Your task to perform on an android device: Go to battery settings Image 0: 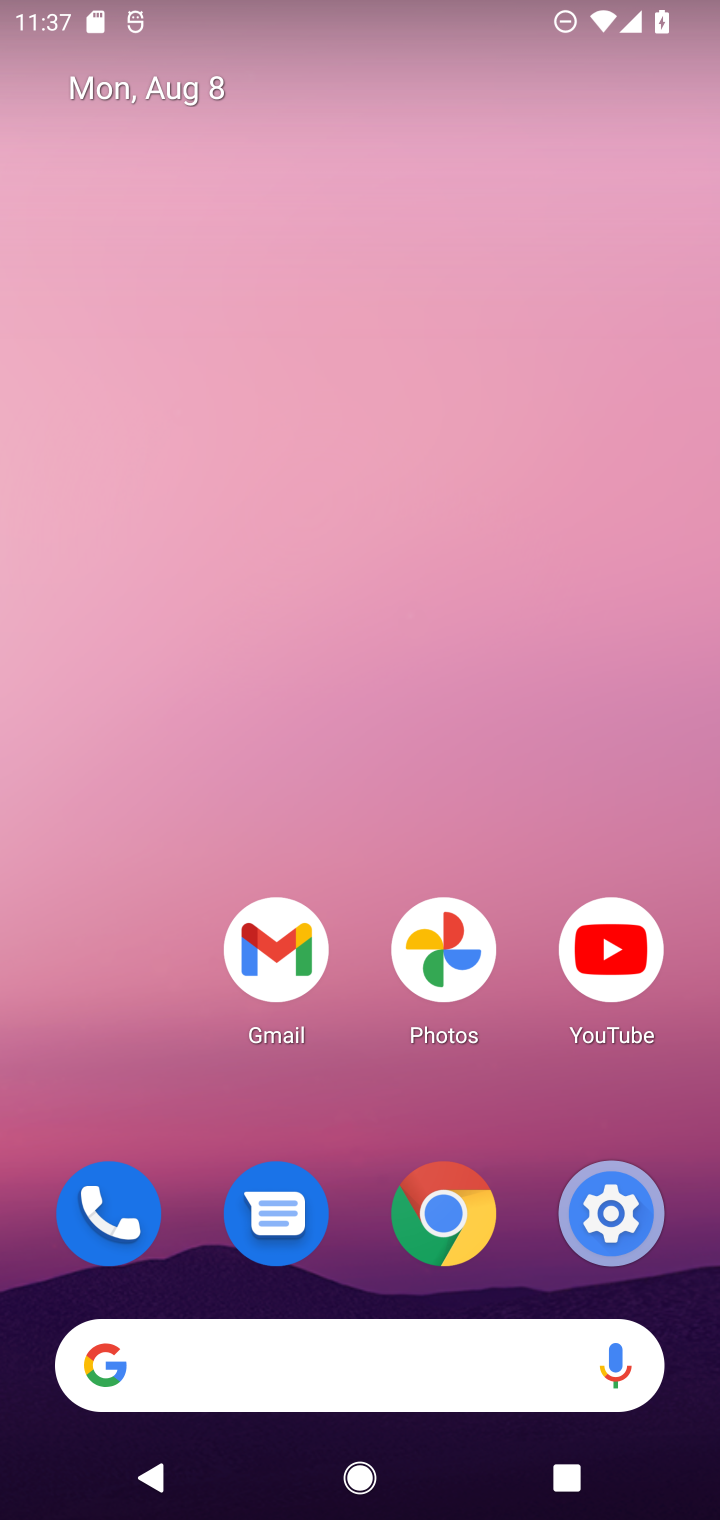
Step 0: press home button
Your task to perform on an android device: Go to battery settings Image 1: 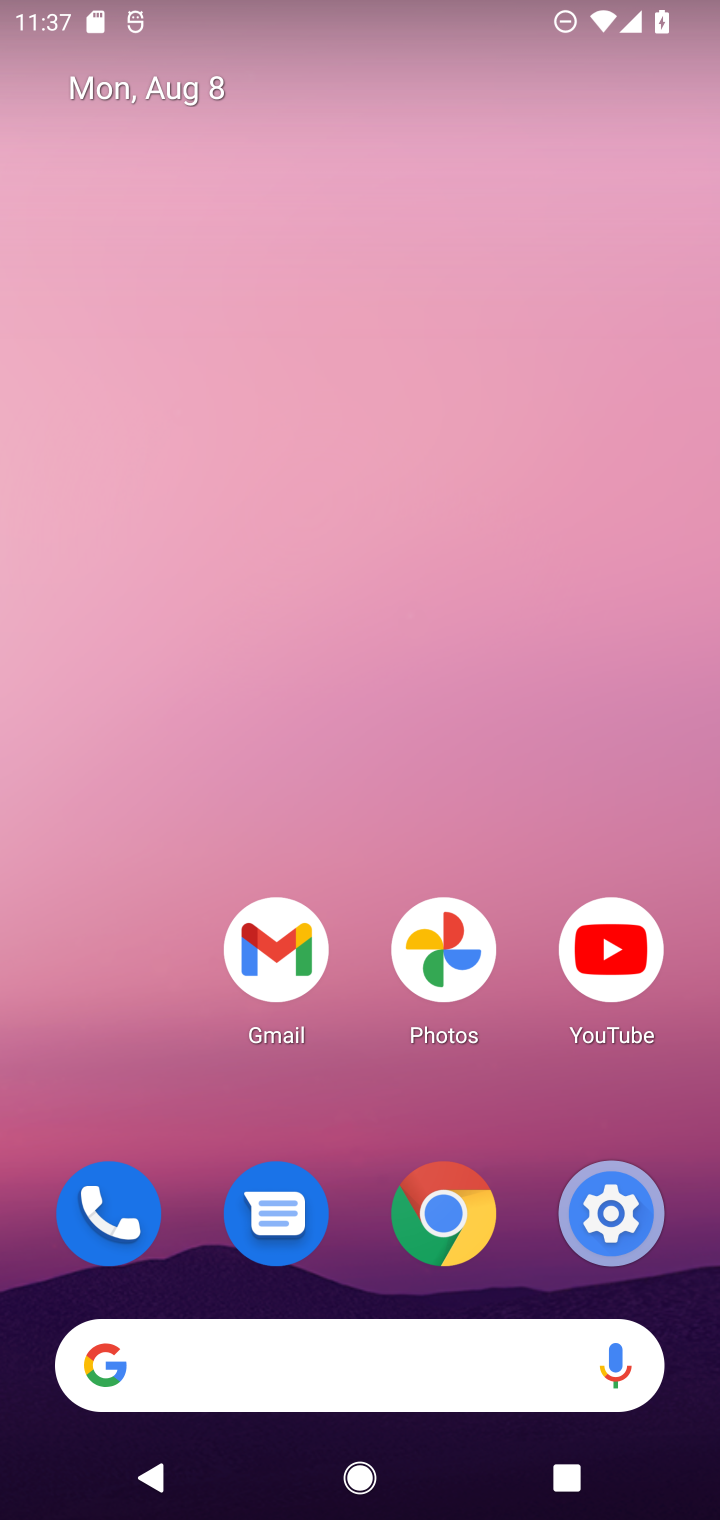
Step 1: click (608, 1205)
Your task to perform on an android device: Go to battery settings Image 2: 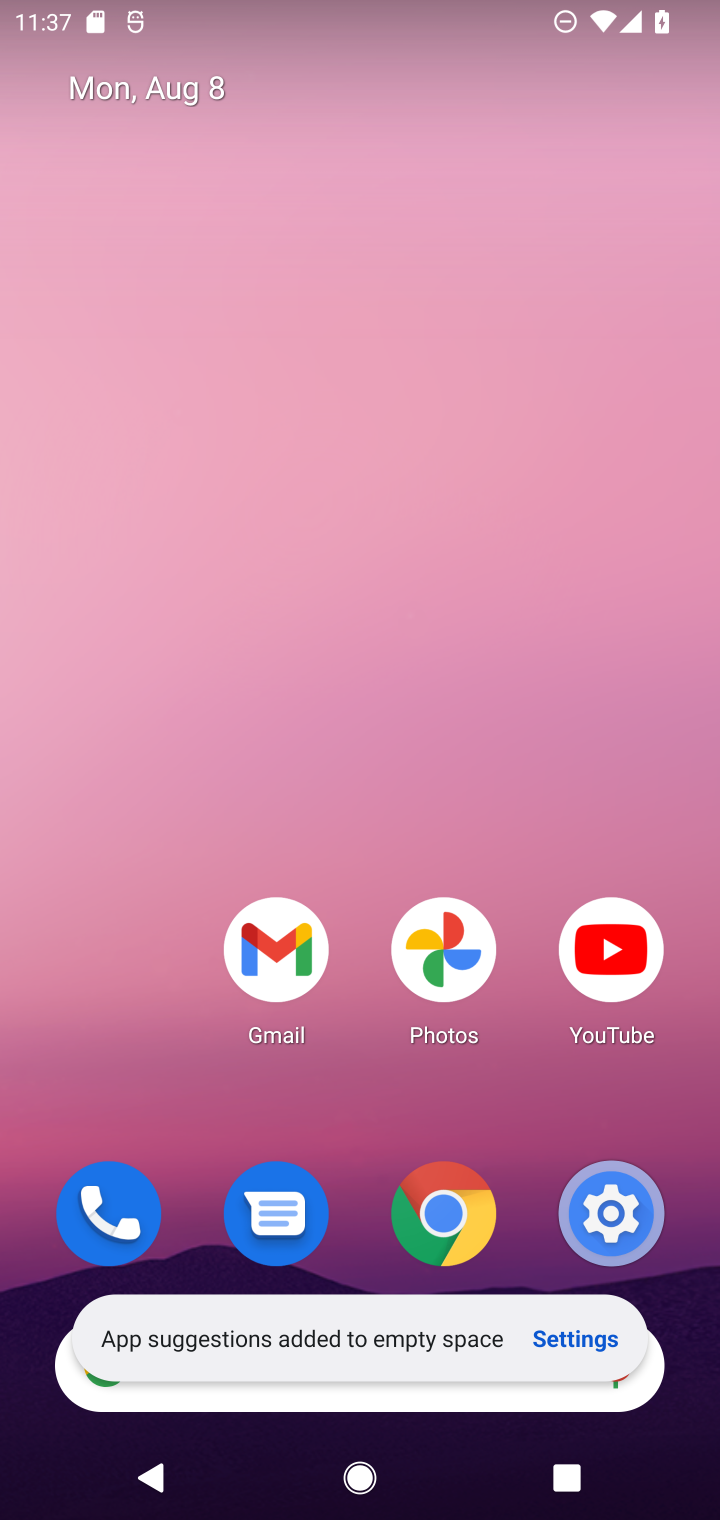
Step 2: drag from (541, 1161) to (539, 4)
Your task to perform on an android device: Go to battery settings Image 3: 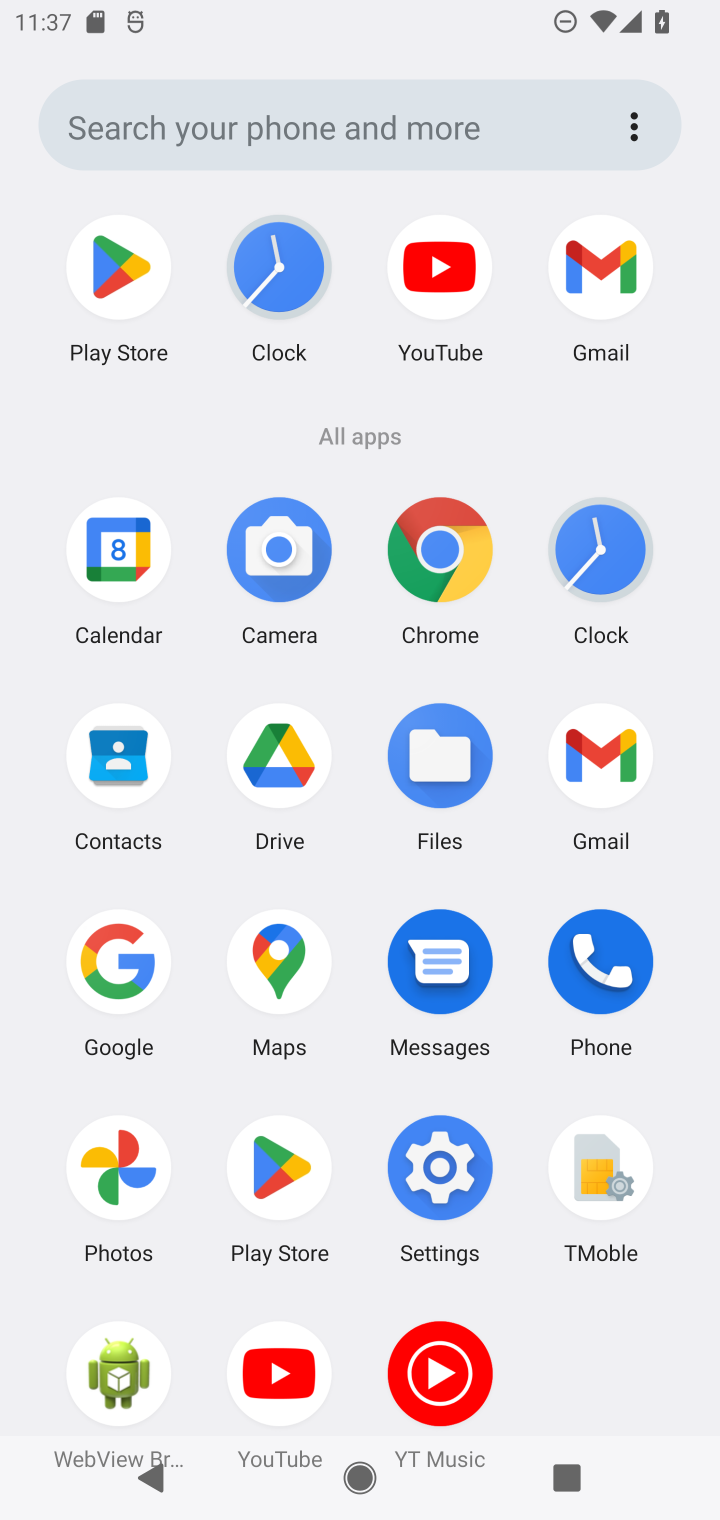
Step 3: click (436, 1144)
Your task to perform on an android device: Go to battery settings Image 4: 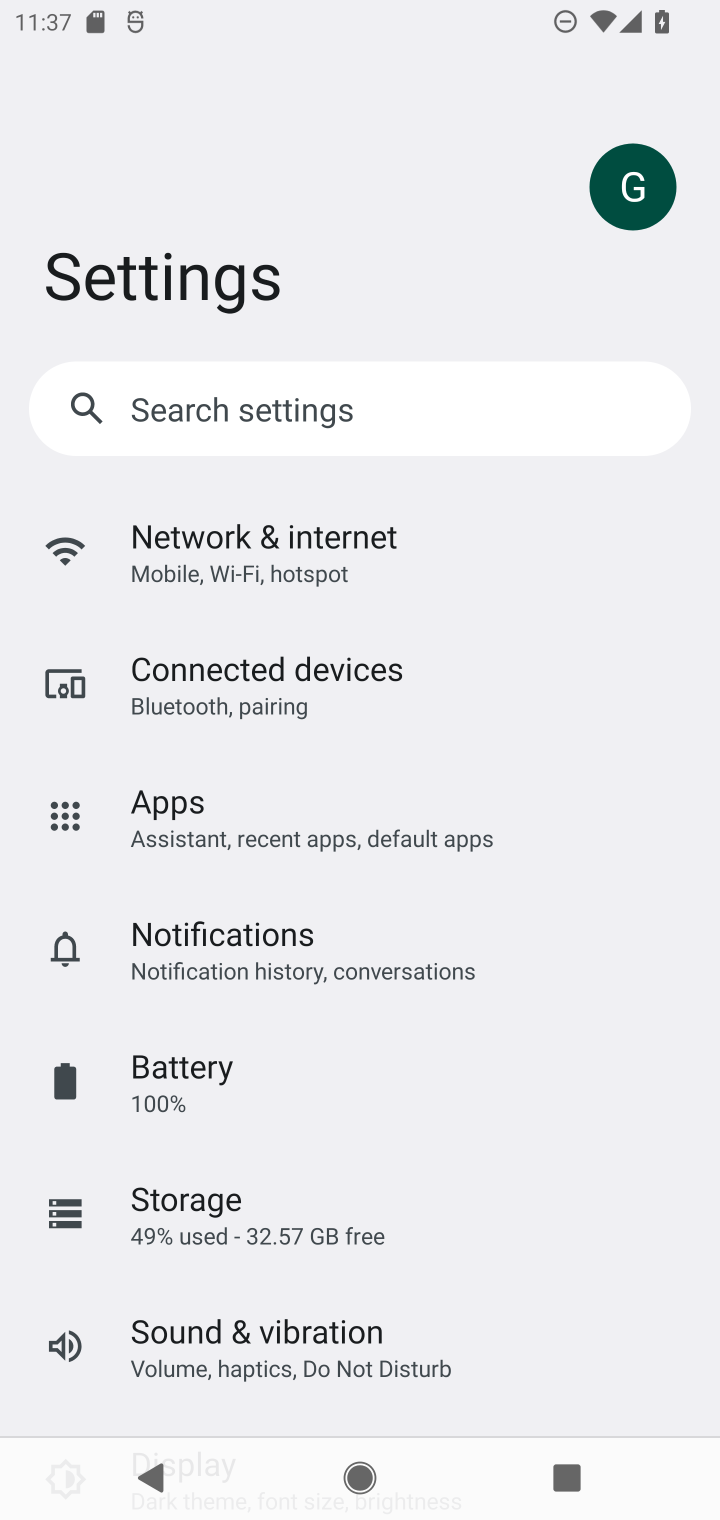
Step 4: click (269, 1073)
Your task to perform on an android device: Go to battery settings Image 5: 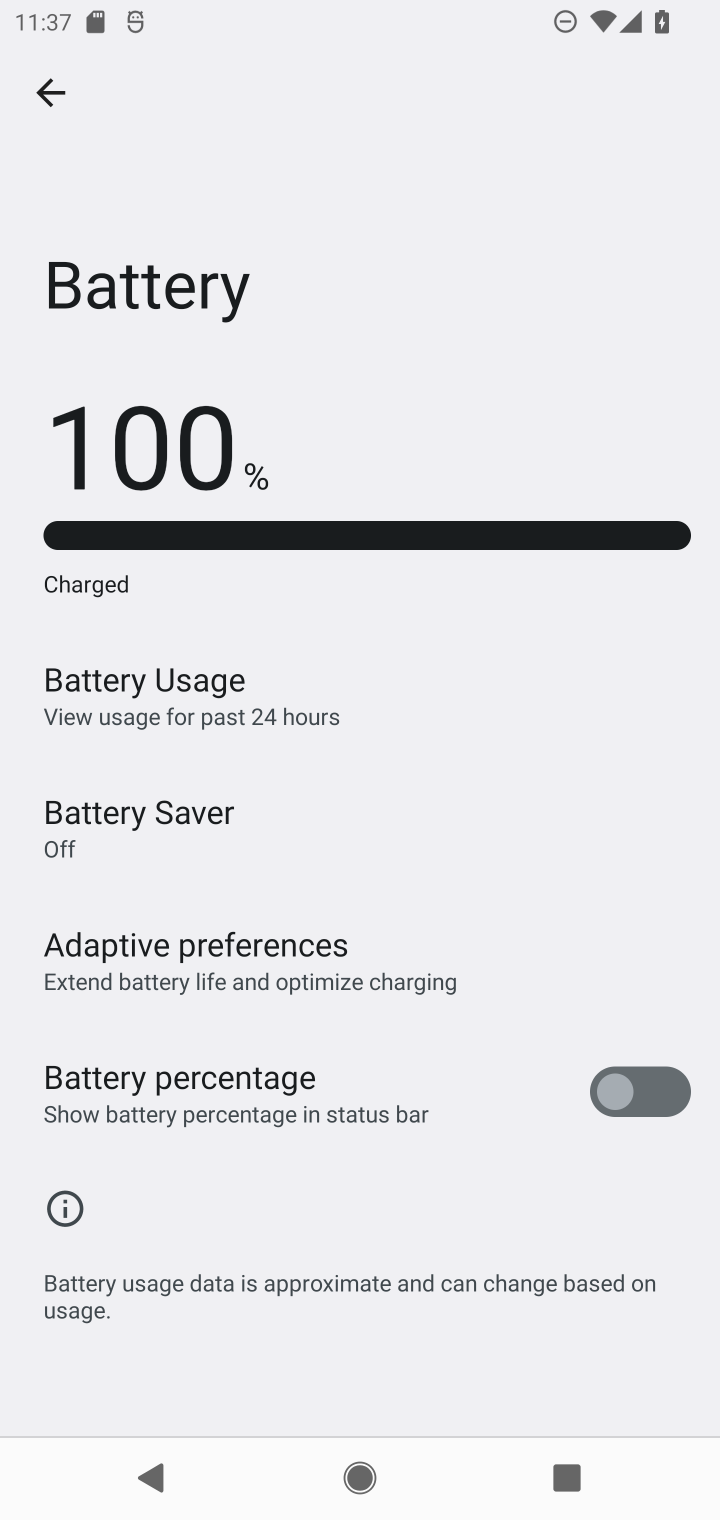
Step 5: task complete